Your task to perform on an android device: read, delete, or share a saved page in the chrome app Image 0: 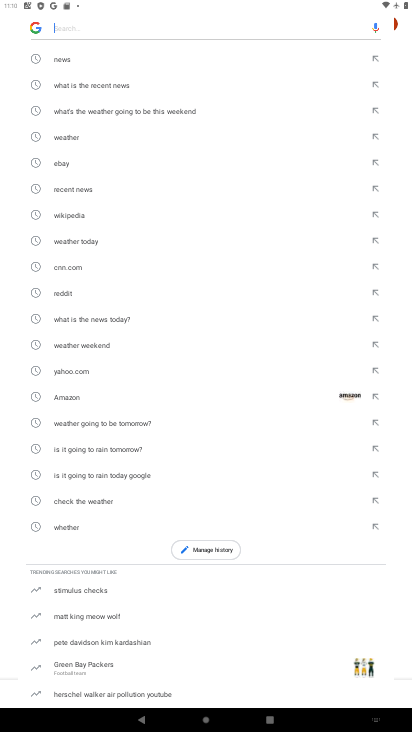
Step 0: press home button
Your task to perform on an android device: read, delete, or share a saved page in the chrome app Image 1: 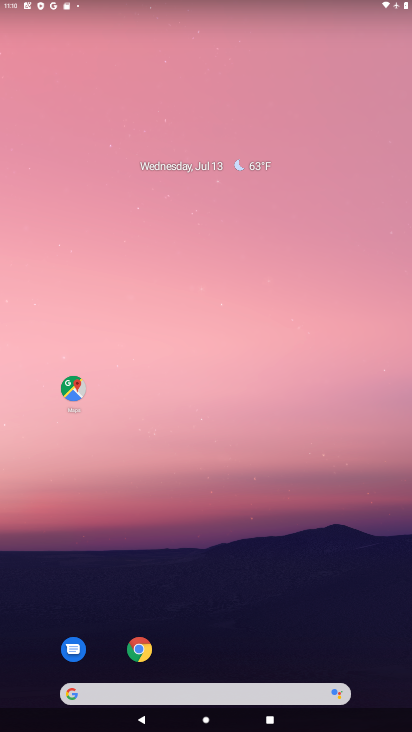
Step 1: drag from (266, 632) to (250, 208)
Your task to perform on an android device: read, delete, or share a saved page in the chrome app Image 2: 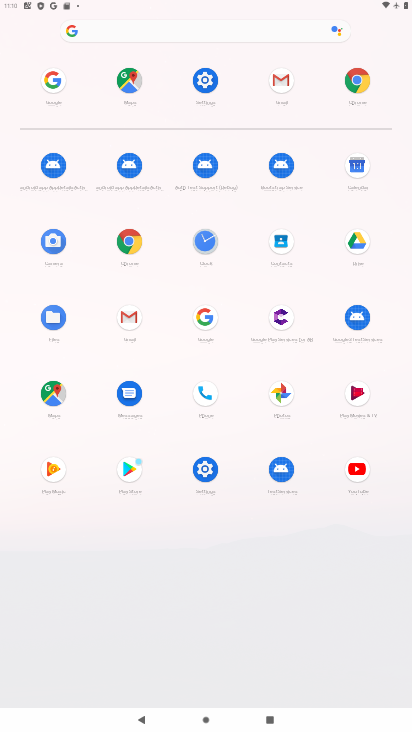
Step 2: click (349, 75)
Your task to perform on an android device: read, delete, or share a saved page in the chrome app Image 3: 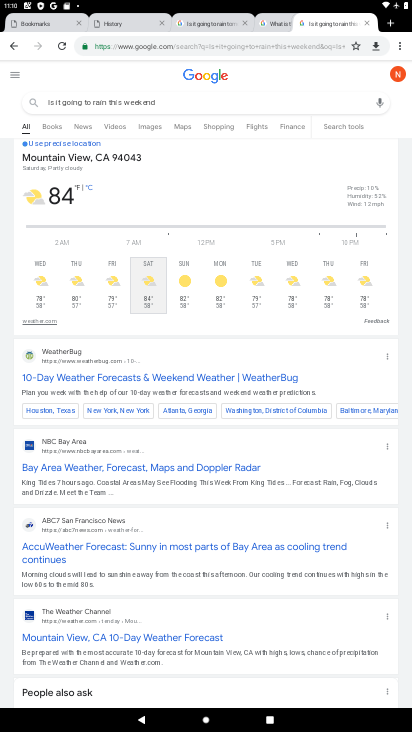
Step 3: click (405, 50)
Your task to perform on an android device: read, delete, or share a saved page in the chrome app Image 4: 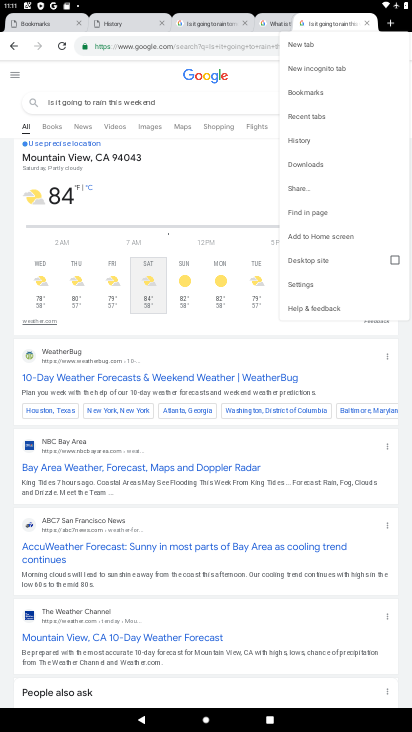
Step 4: click (317, 113)
Your task to perform on an android device: read, delete, or share a saved page in the chrome app Image 5: 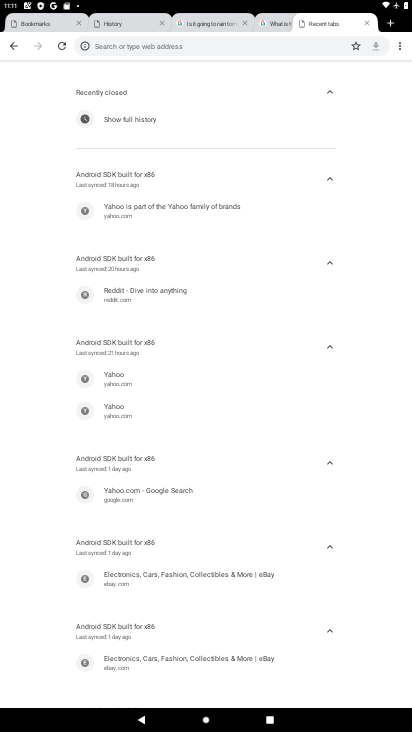
Step 5: task complete